Your task to perform on an android device: See recent photos Image 0: 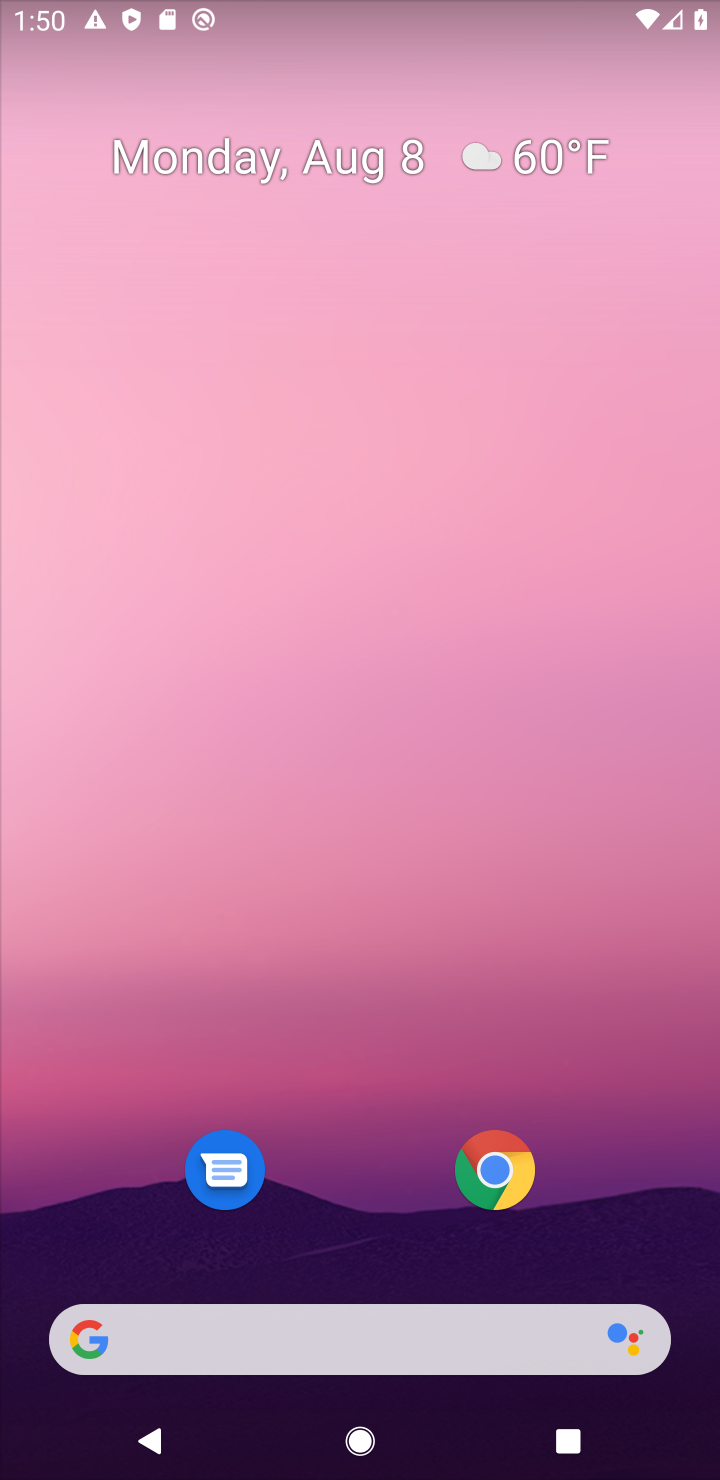
Step 0: drag from (332, 1172) to (332, 312)
Your task to perform on an android device: See recent photos Image 1: 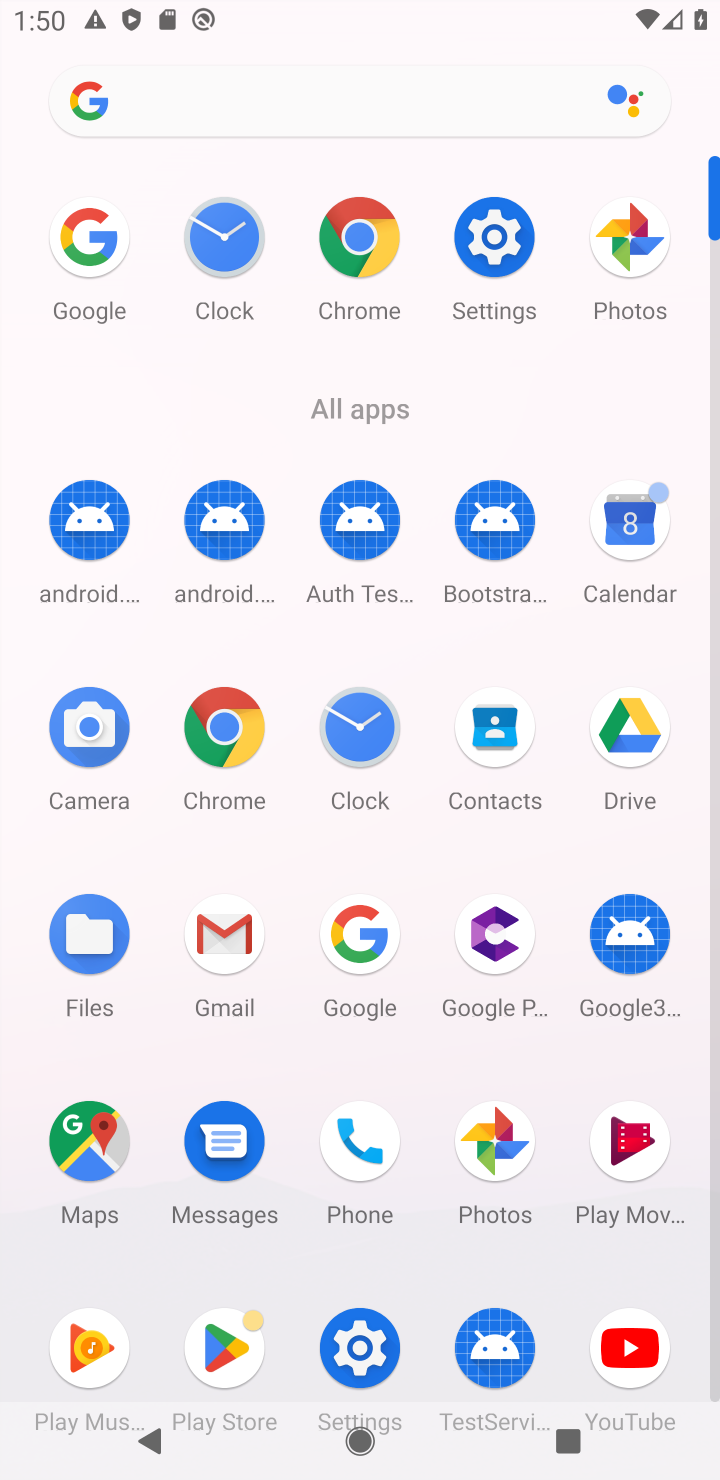
Step 1: click (613, 287)
Your task to perform on an android device: See recent photos Image 2: 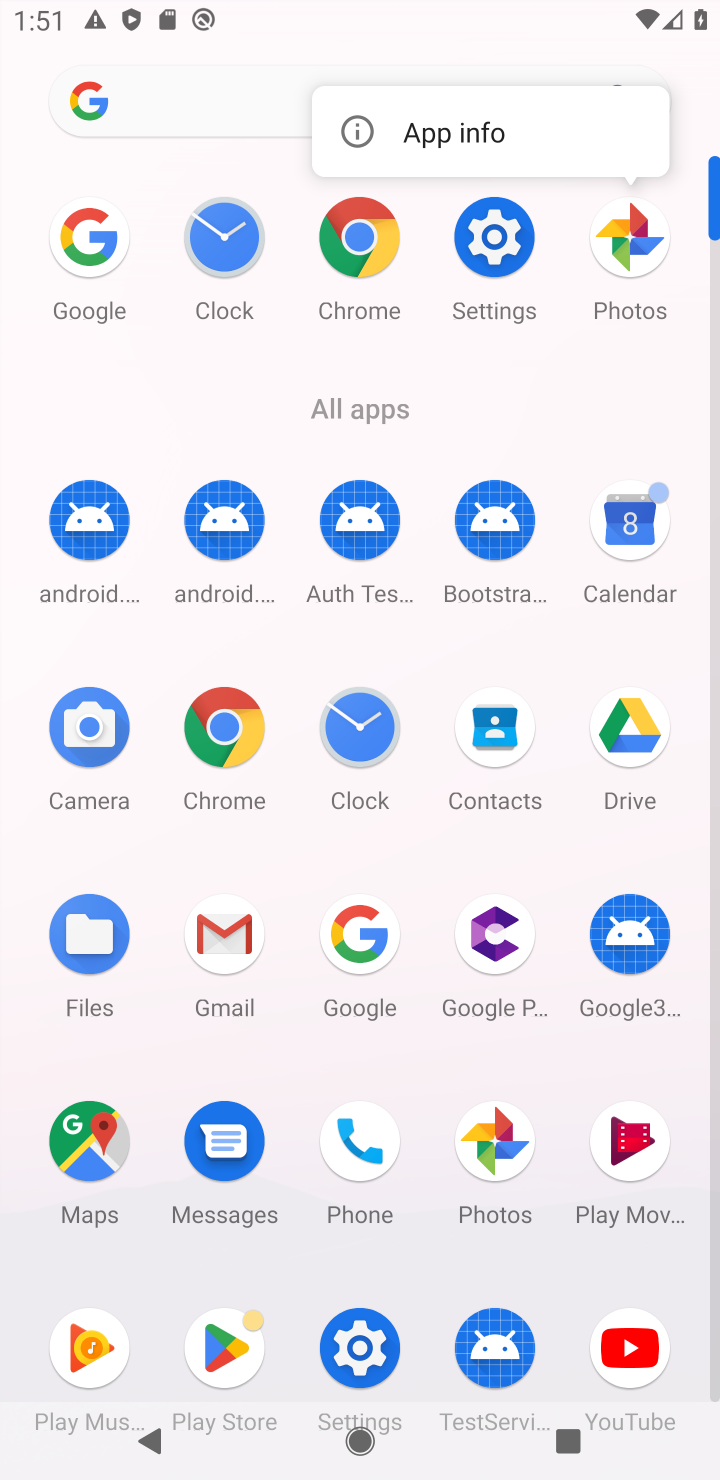
Step 2: click (645, 263)
Your task to perform on an android device: See recent photos Image 3: 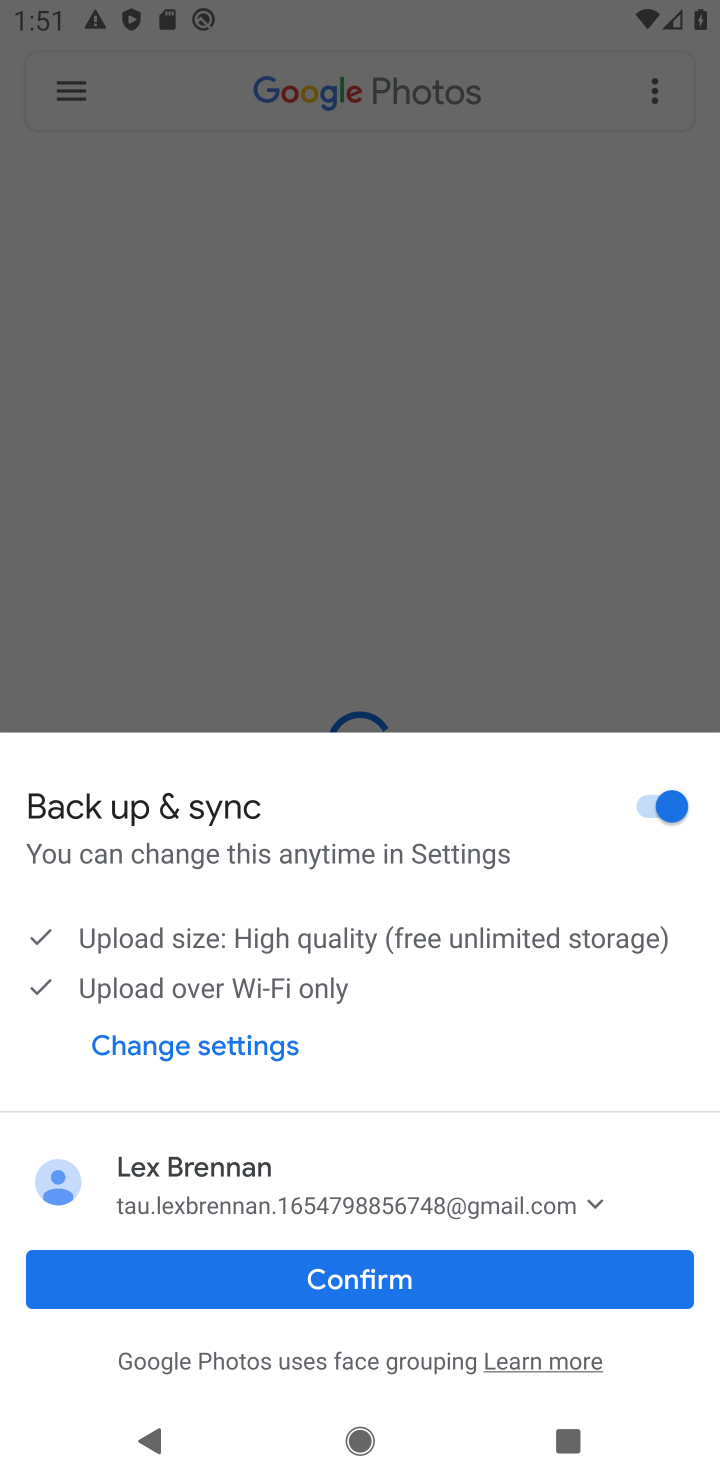
Step 3: click (391, 1283)
Your task to perform on an android device: See recent photos Image 4: 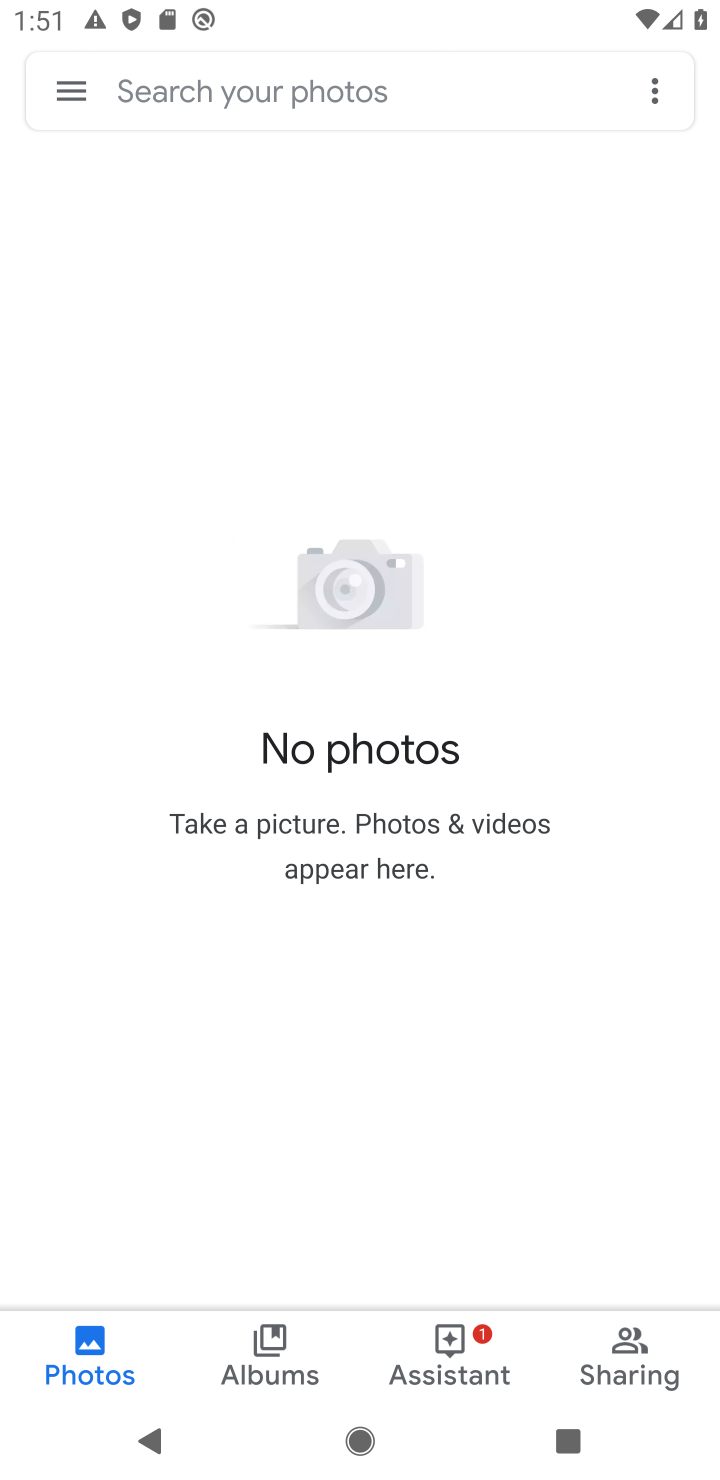
Step 4: task complete